Your task to perform on an android device: Add "logitech g502" to the cart on walmart, then select checkout. Image 0: 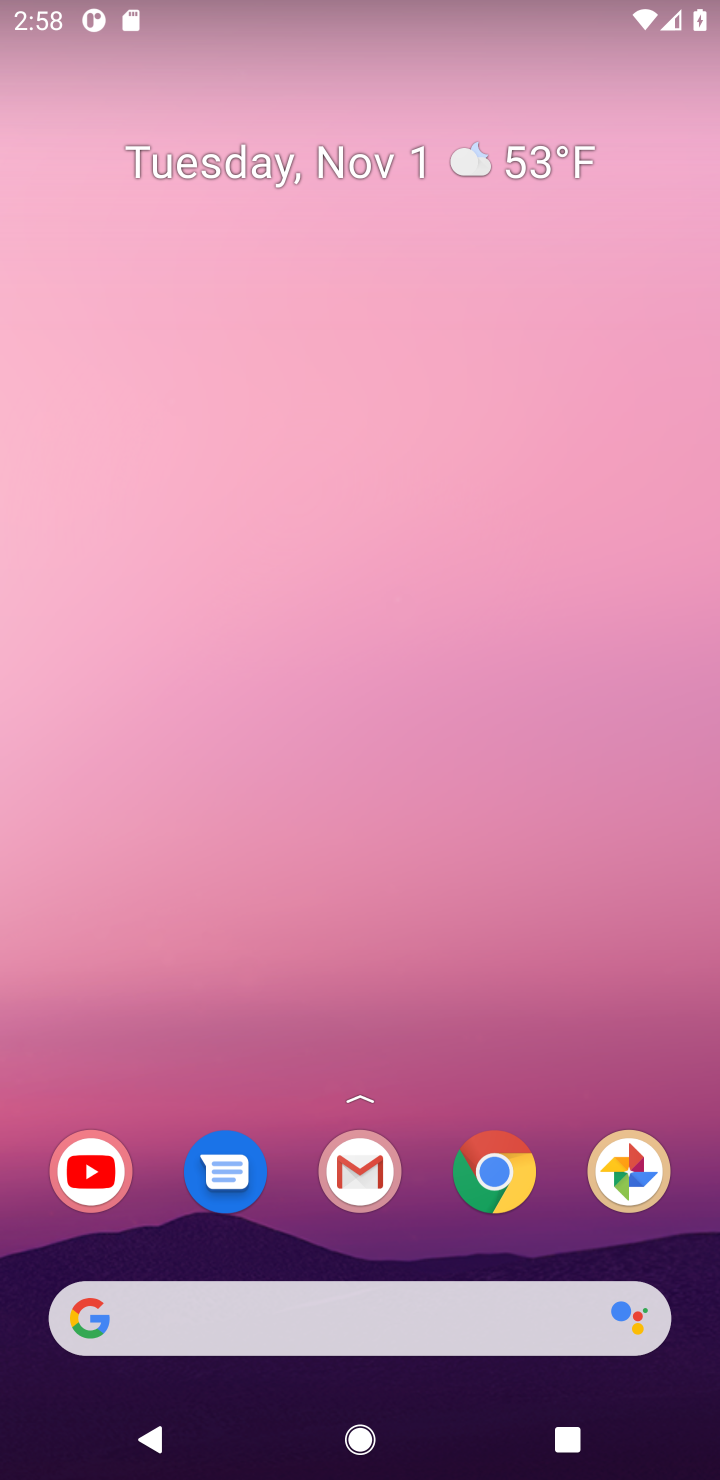
Step 0: press home button
Your task to perform on an android device: Add "logitech g502" to the cart on walmart, then select checkout. Image 1: 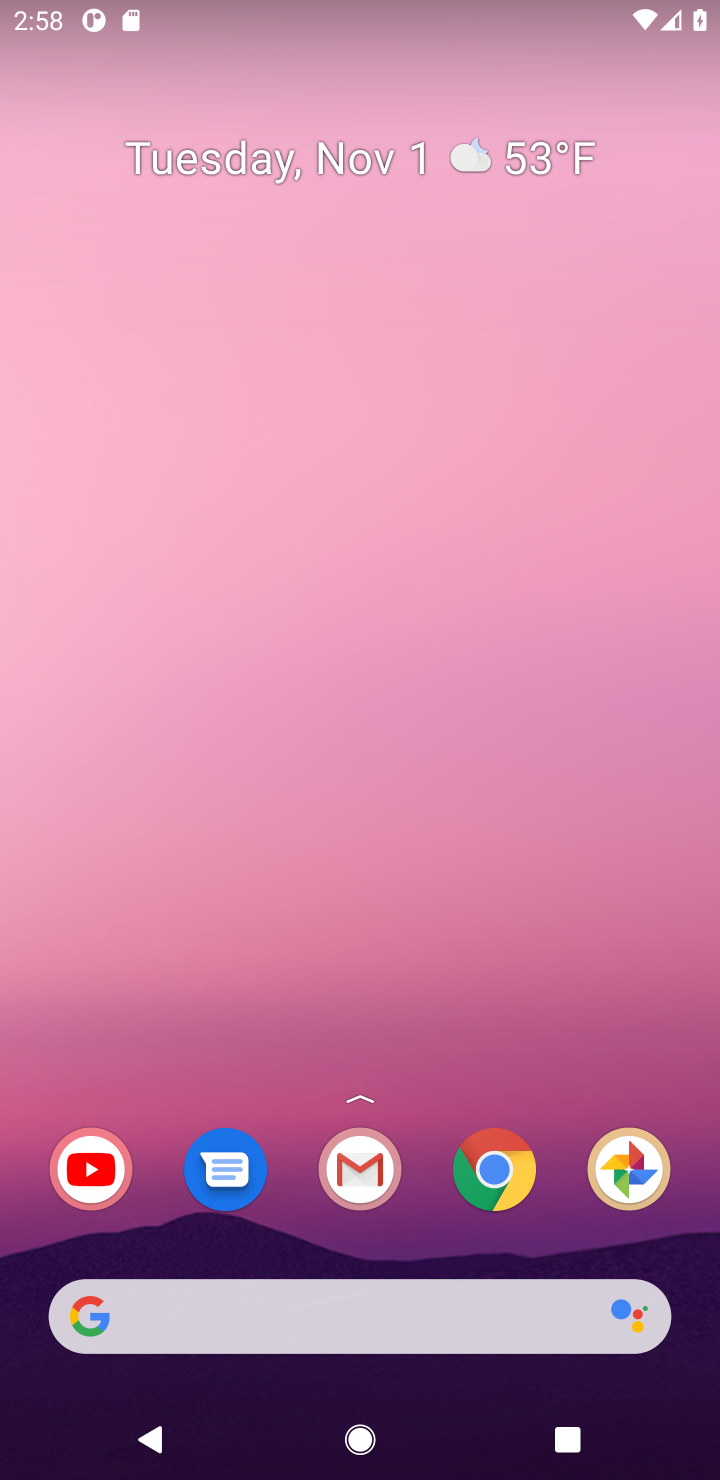
Step 1: click (494, 1157)
Your task to perform on an android device: Add "logitech g502" to the cart on walmart, then select checkout. Image 2: 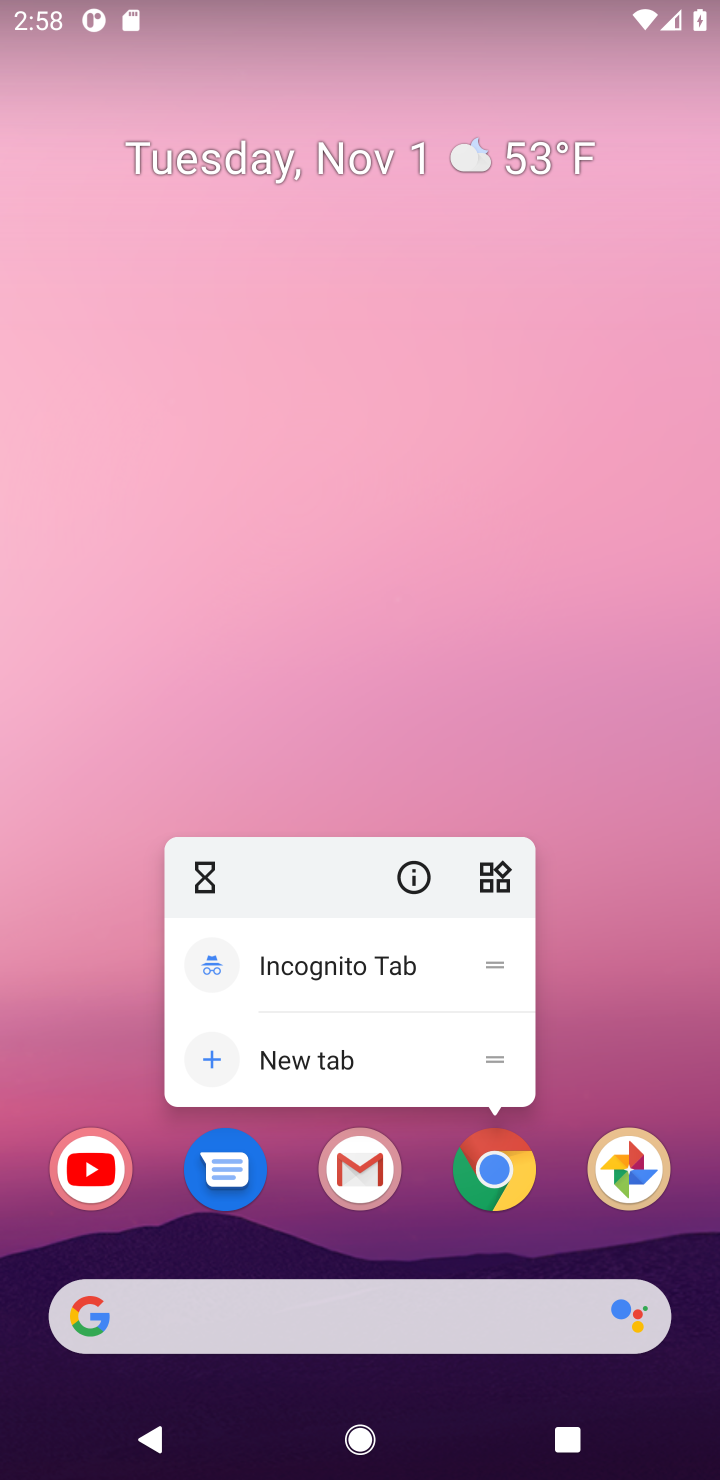
Step 2: click (494, 1157)
Your task to perform on an android device: Add "logitech g502" to the cart on walmart, then select checkout. Image 3: 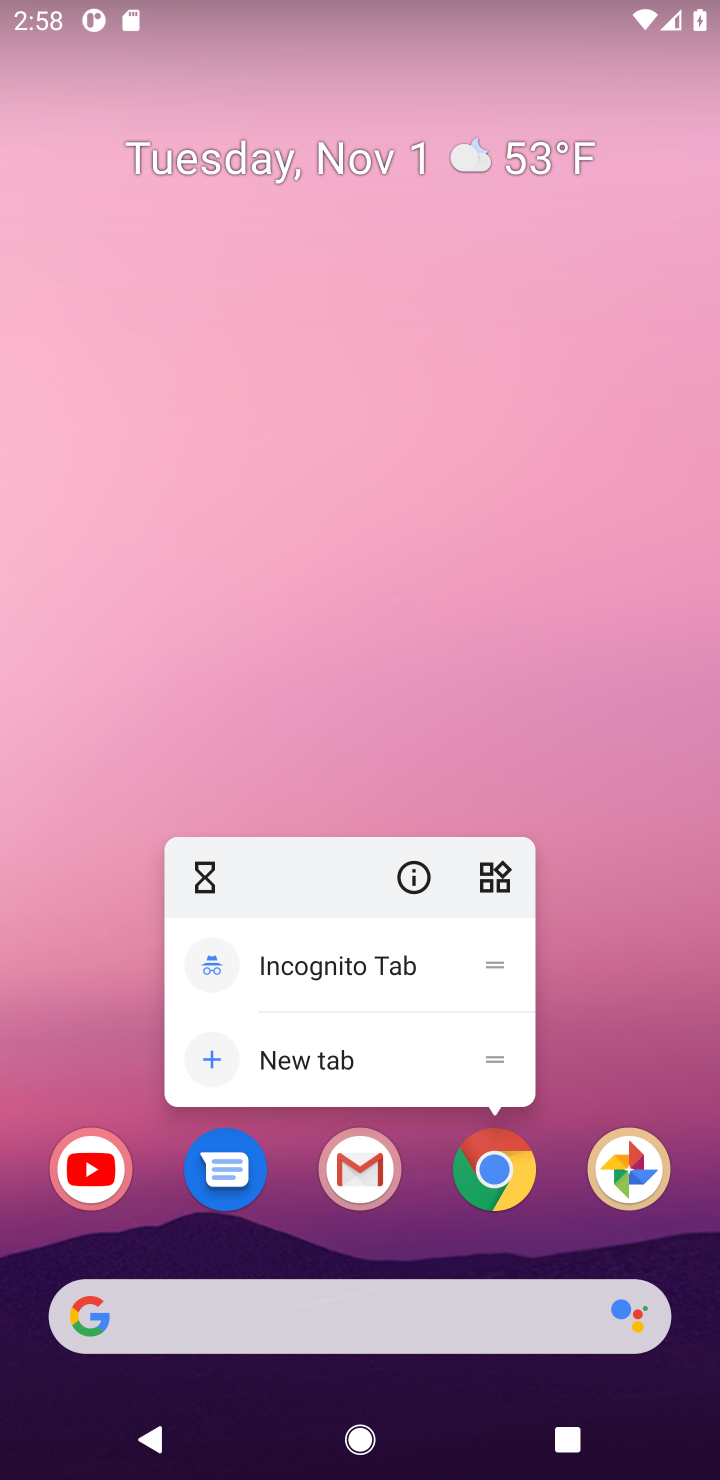
Step 3: click (486, 1179)
Your task to perform on an android device: Add "logitech g502" to the cart on walmart, then select checkout. Image 4: 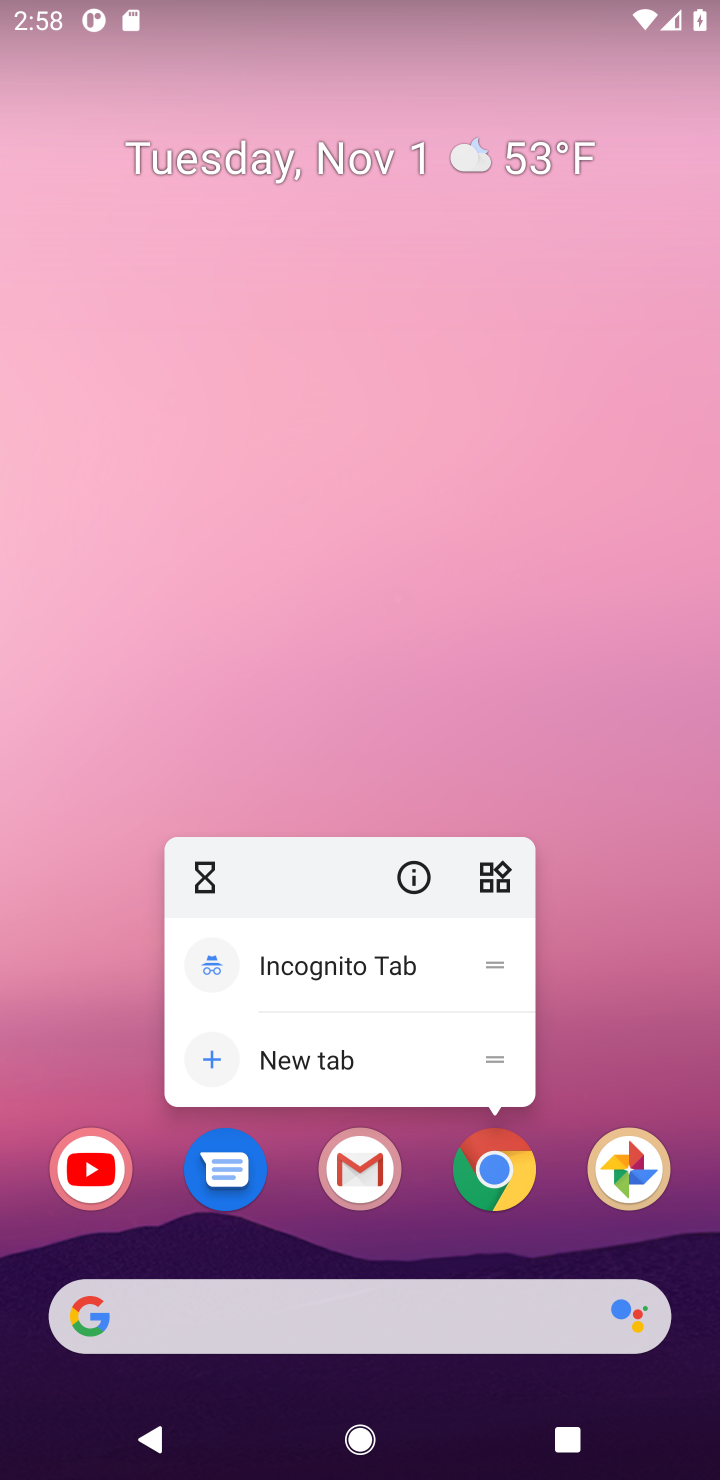
Step 4: click (490, 1162)
Your task to perform on an android device: Add "logitech g502" to the cart on walmart, then select checkout. Image 5: 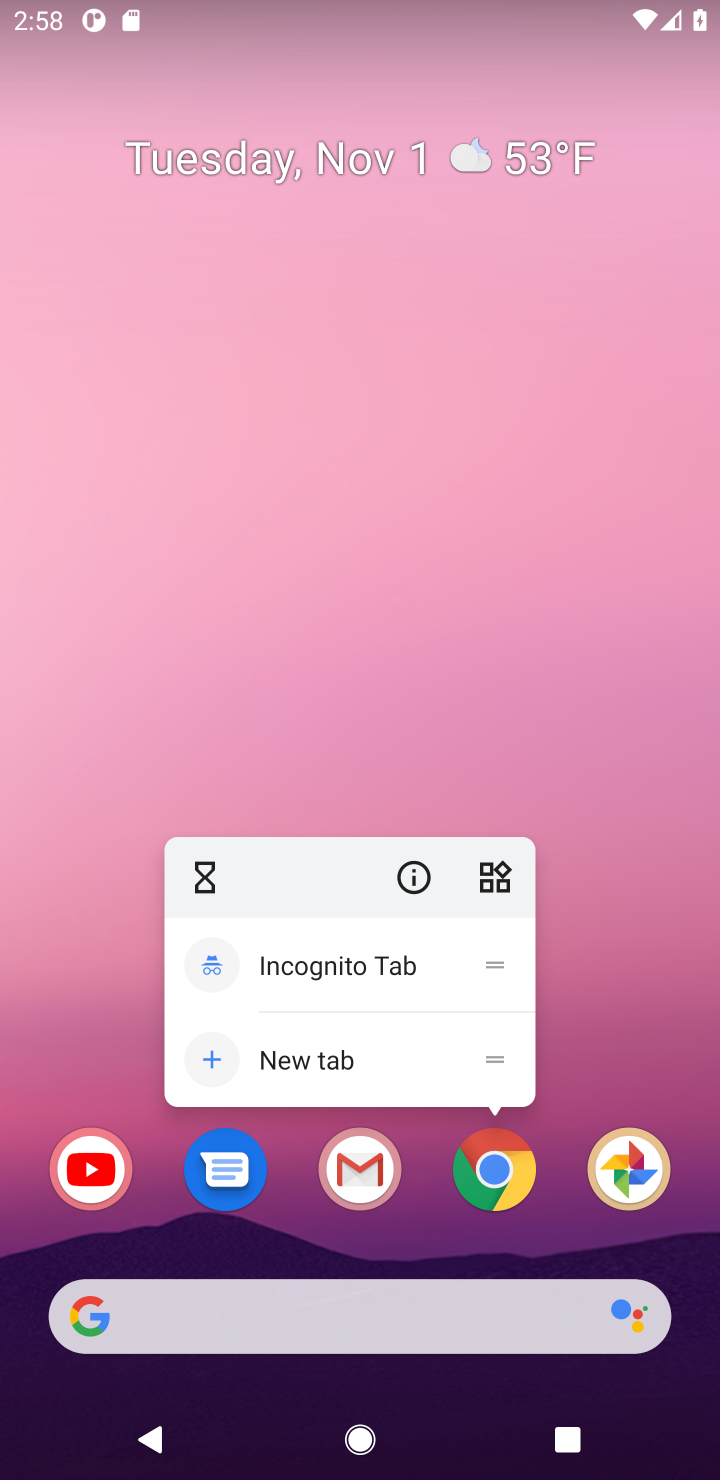
Step 5: click (620, 921)
Your task to perform on an android device: Add "logitech g502" to the cart on walmart, then select checkout. Image 6: 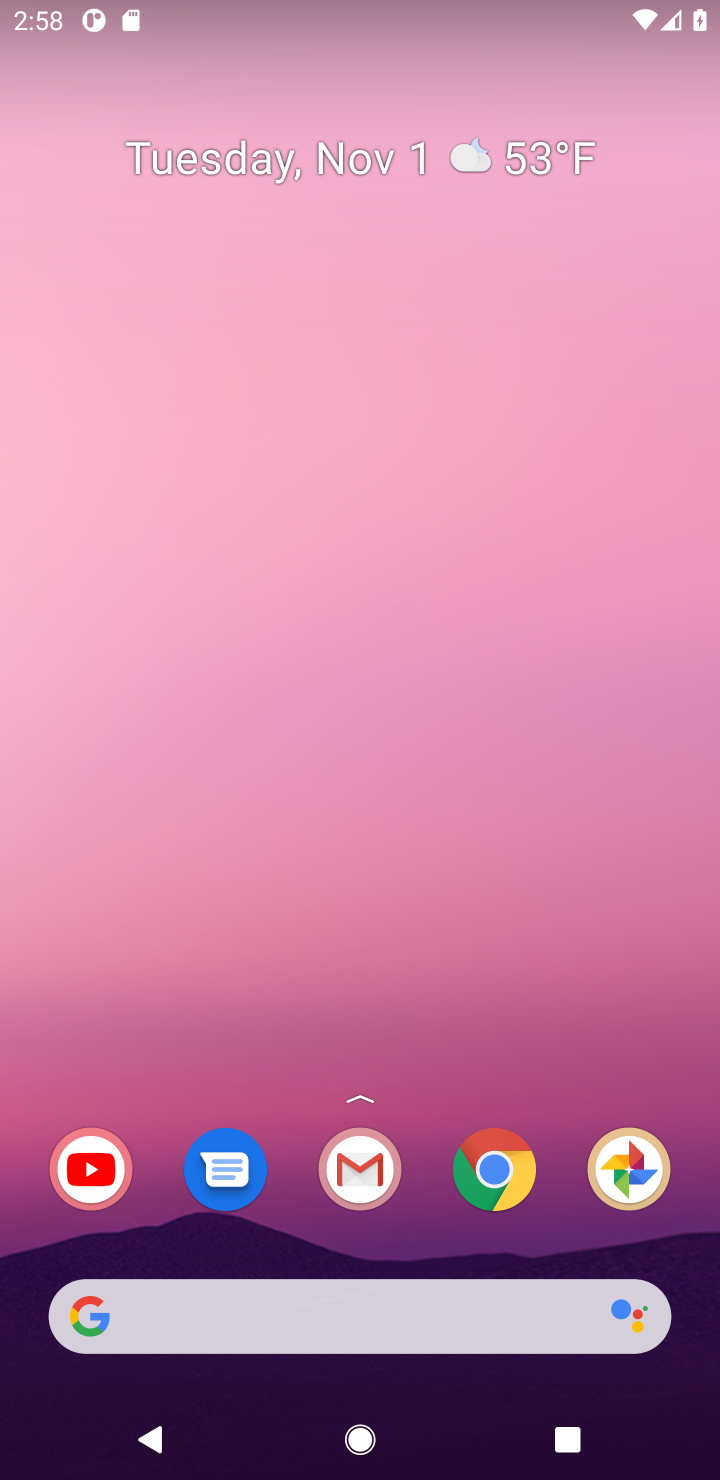
Step 6: drag from (447, 1066) to (542, 165)
Your task to perform on an android device: Add "logitech g502" to the cart on walmart, then select checkout. Image 7: 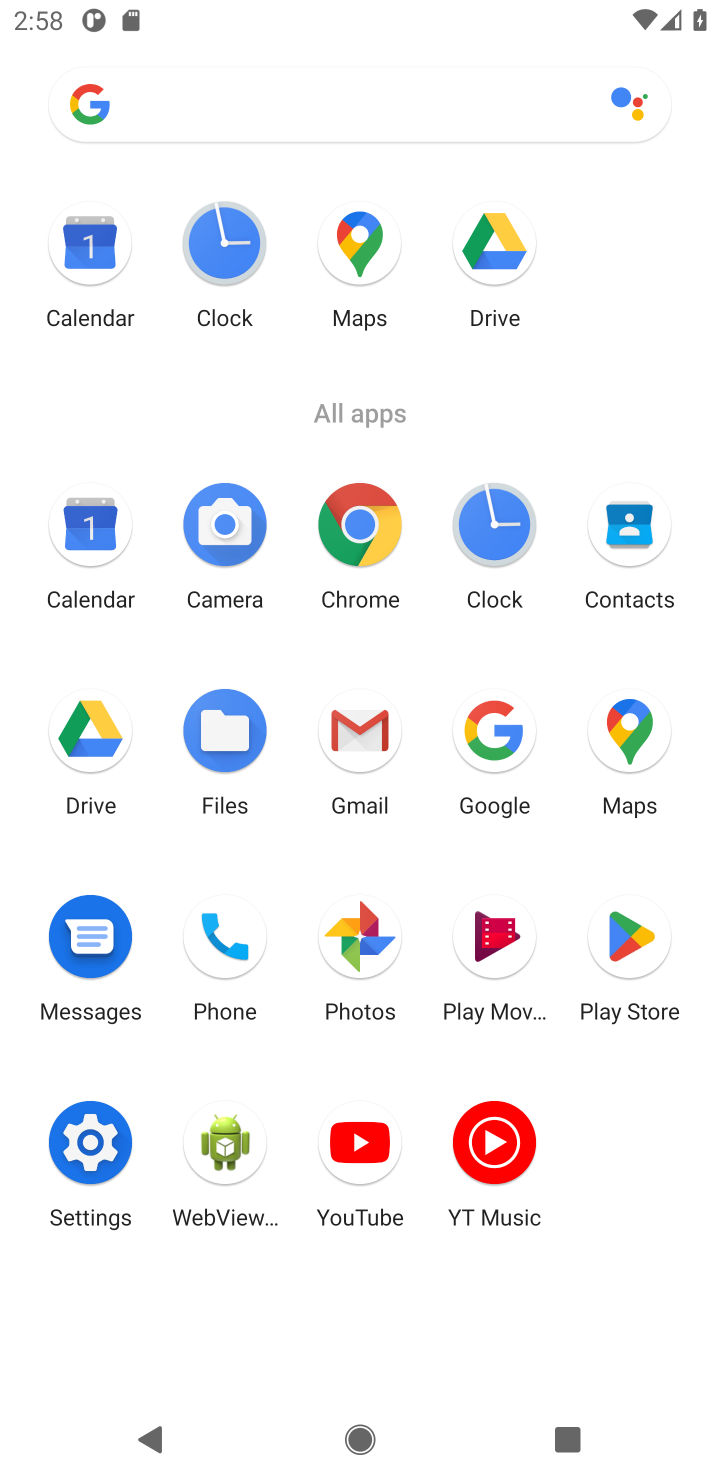
Step 7: click (348, 528)
Your task to perform on an android device: Add "logitech g502" to the cart on walmart, then select checkout. Image 8: 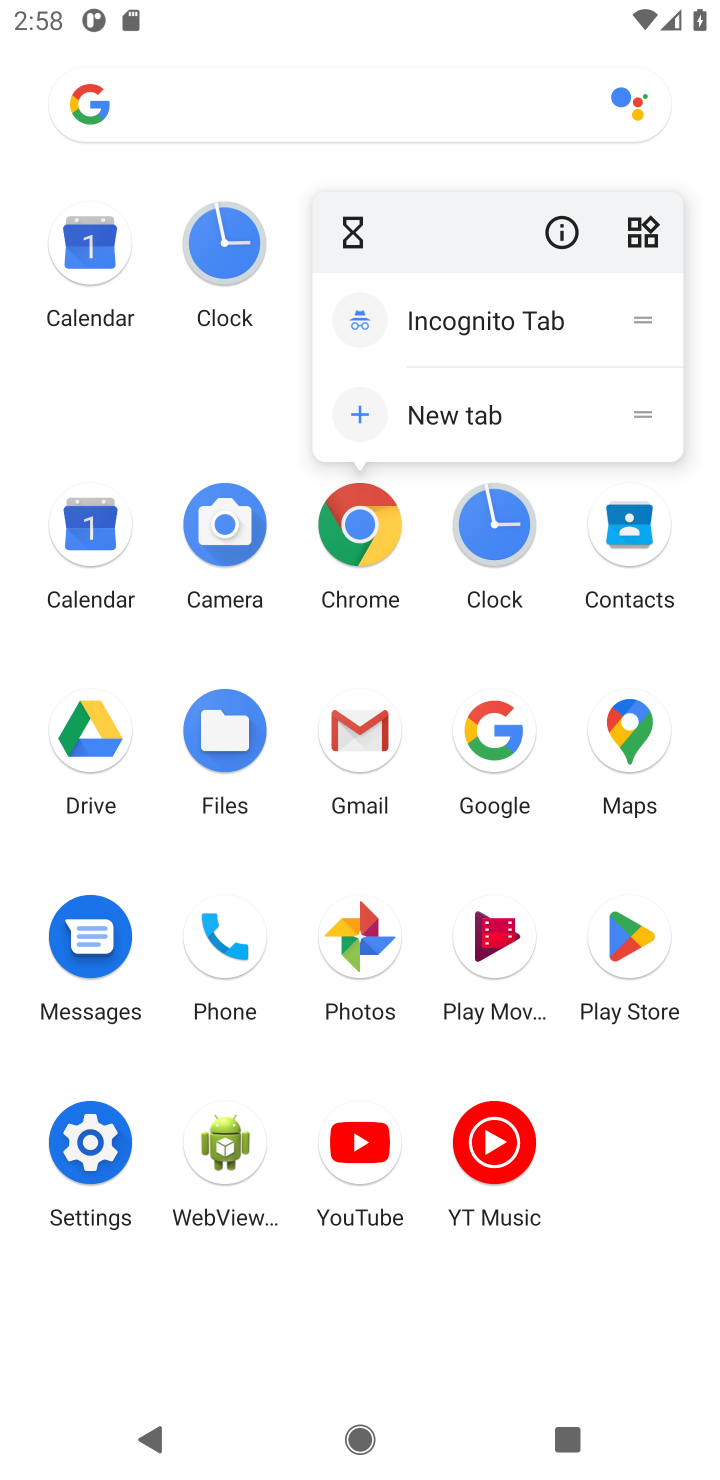
Step 8: click (363, 505)
Your task to perform on an android device: Add "logitech g502" to the cart on walmart, then select checkout. Image 9: 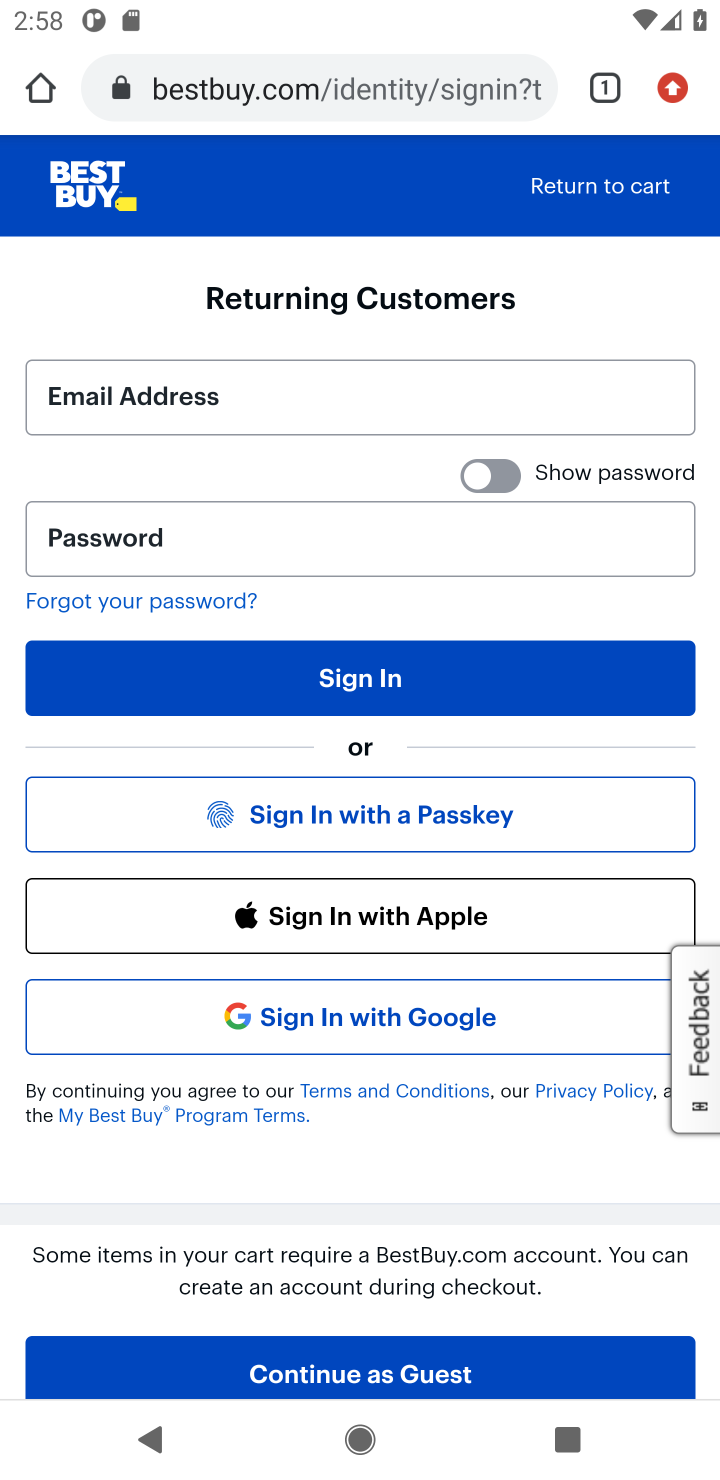
Step 9: click (302, 79)
Your task to perform on an android device: Add "logitech g502" to the cart on walmart, then select checkout. Image 10: 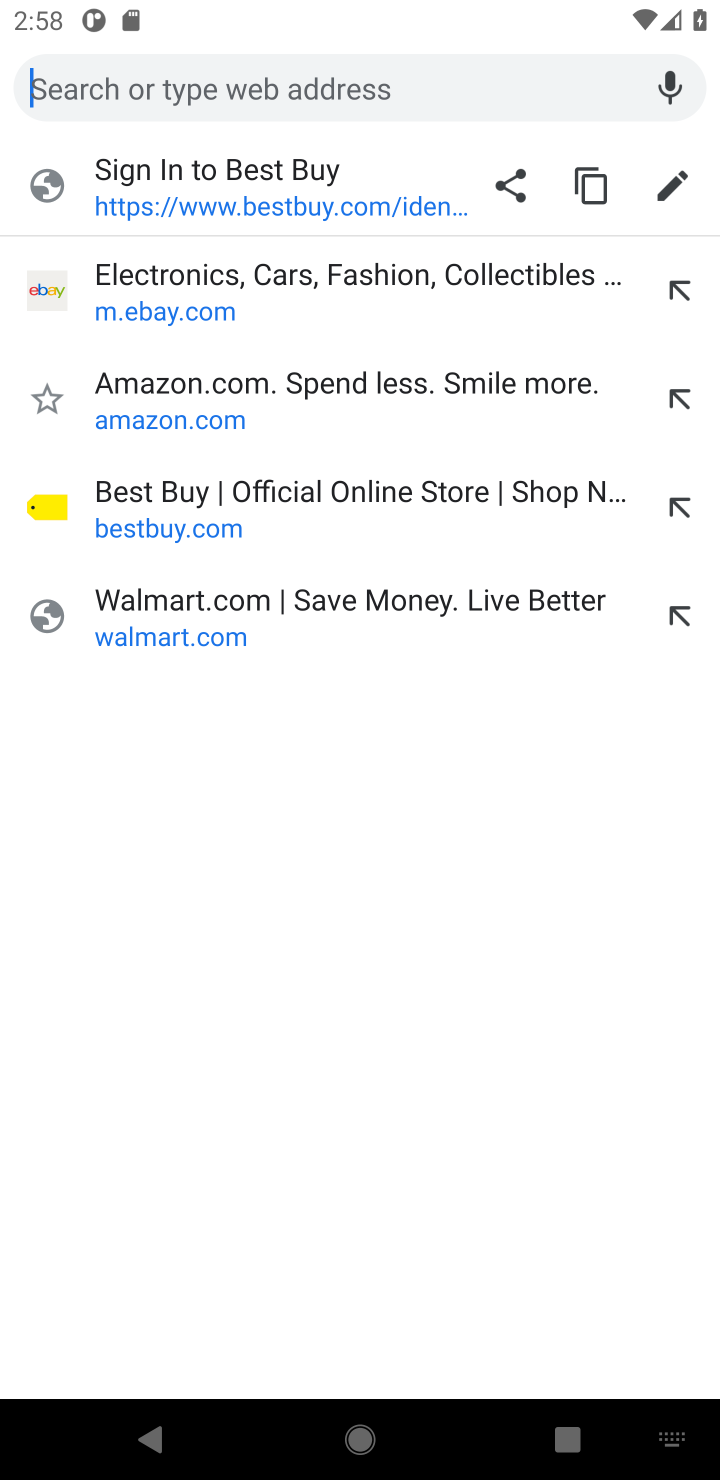
Step 10: type "walmart"
Your task to perform on an android device: Add "logitech g502" to the cart on walmart, then select checkout. Image 11: 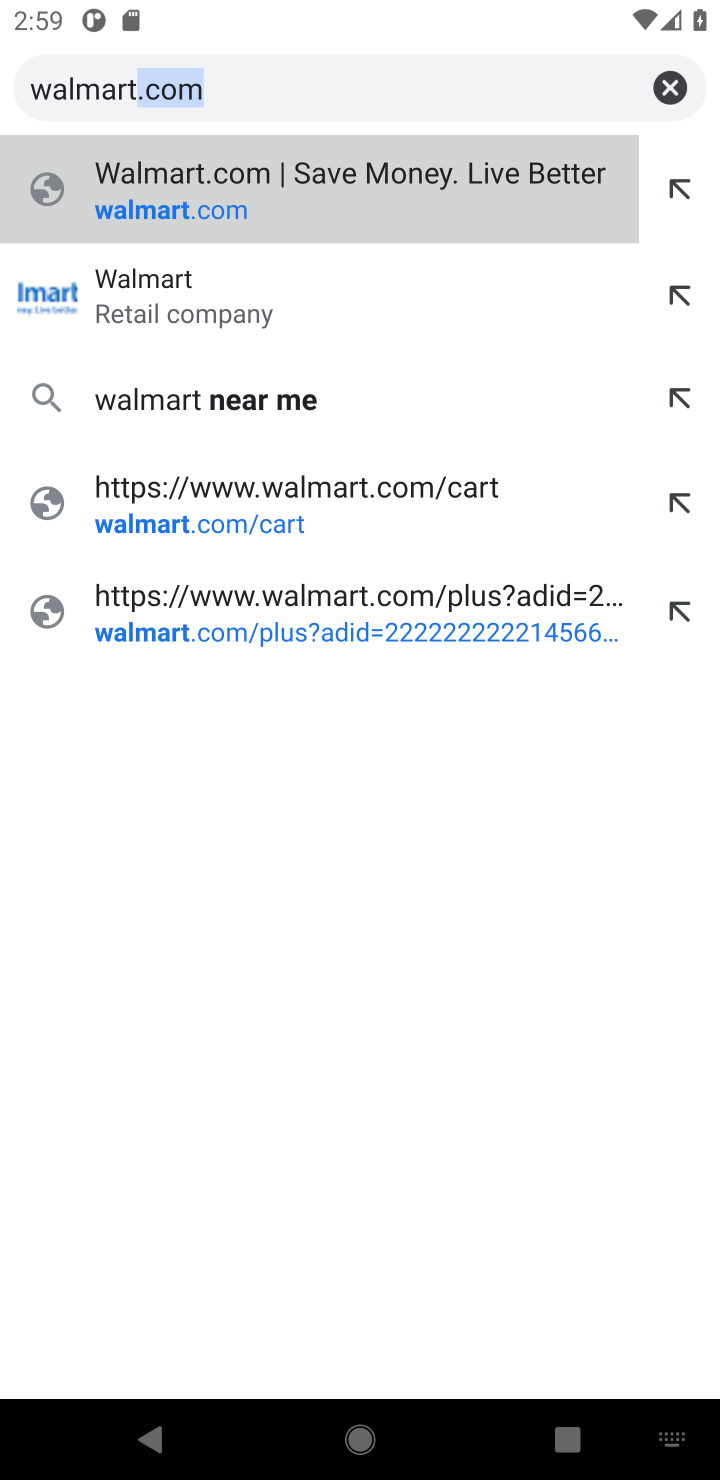
Step 11: click (245, 212)
Your task to perform on an android device: Add "logitech g502" to the cart on walmart, then select checkout. Image 12: 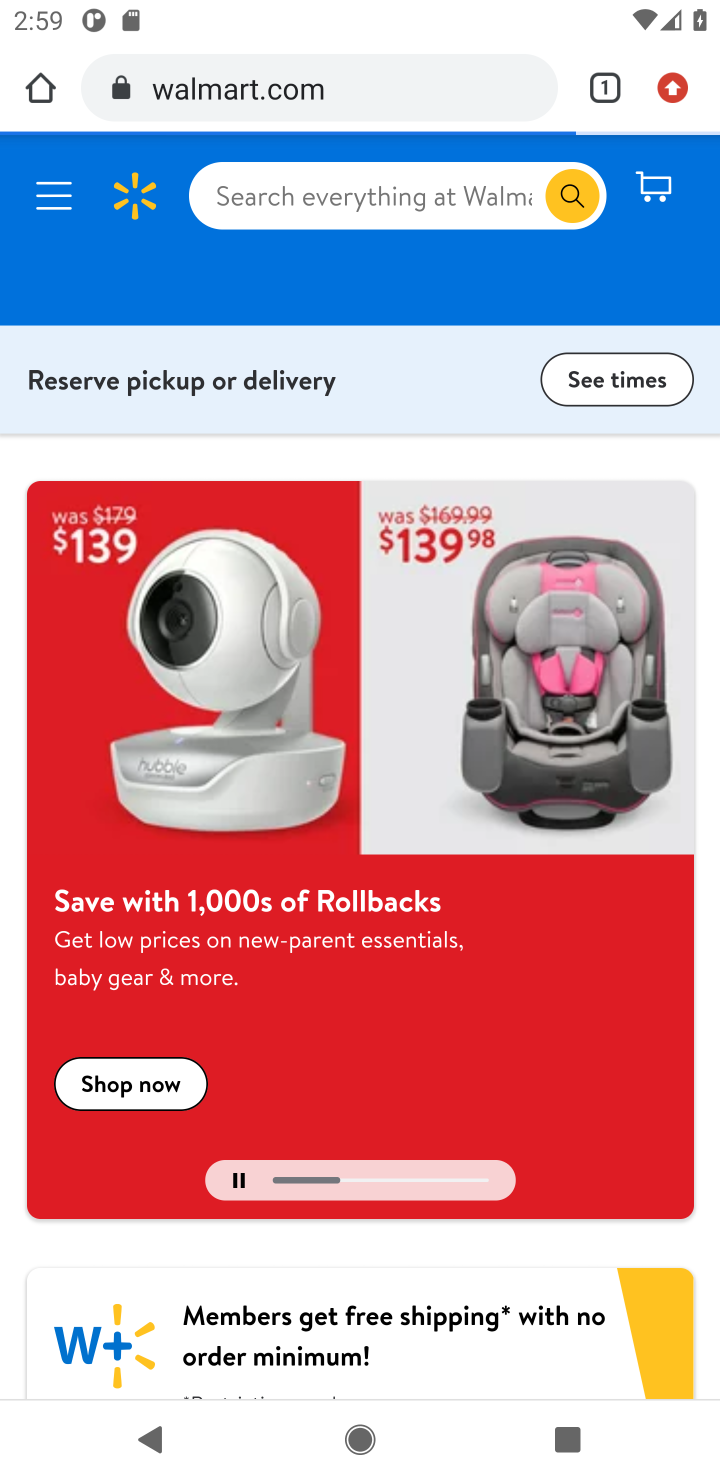
Step 12: click (369, 195)
Your task to perform on an android device: Add "logitech g502" to the cart on walmart, then select checkout. Image 13: 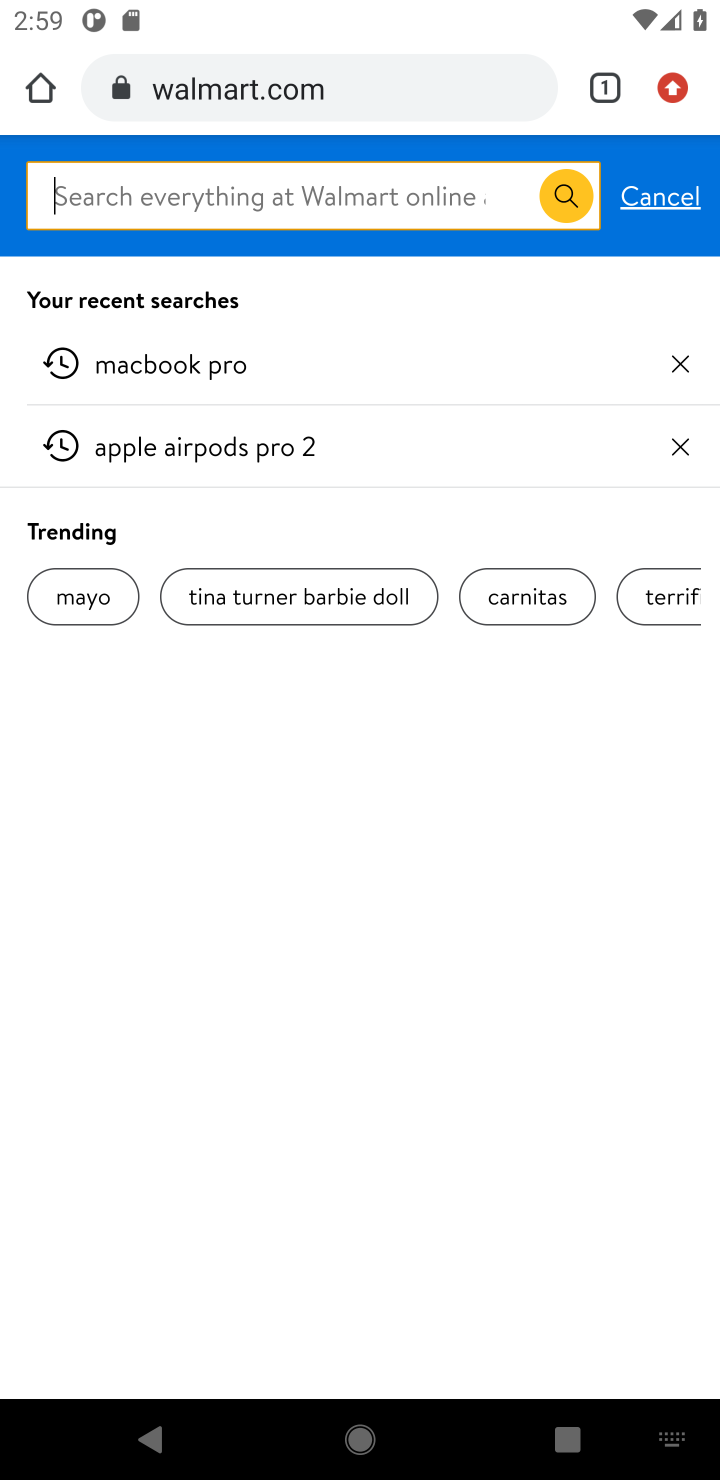
Step 13: type "logitech g502"
Your task to perform on an android device: Add "logitech g502" to the cart on walmart, then select checkout. Image 14: 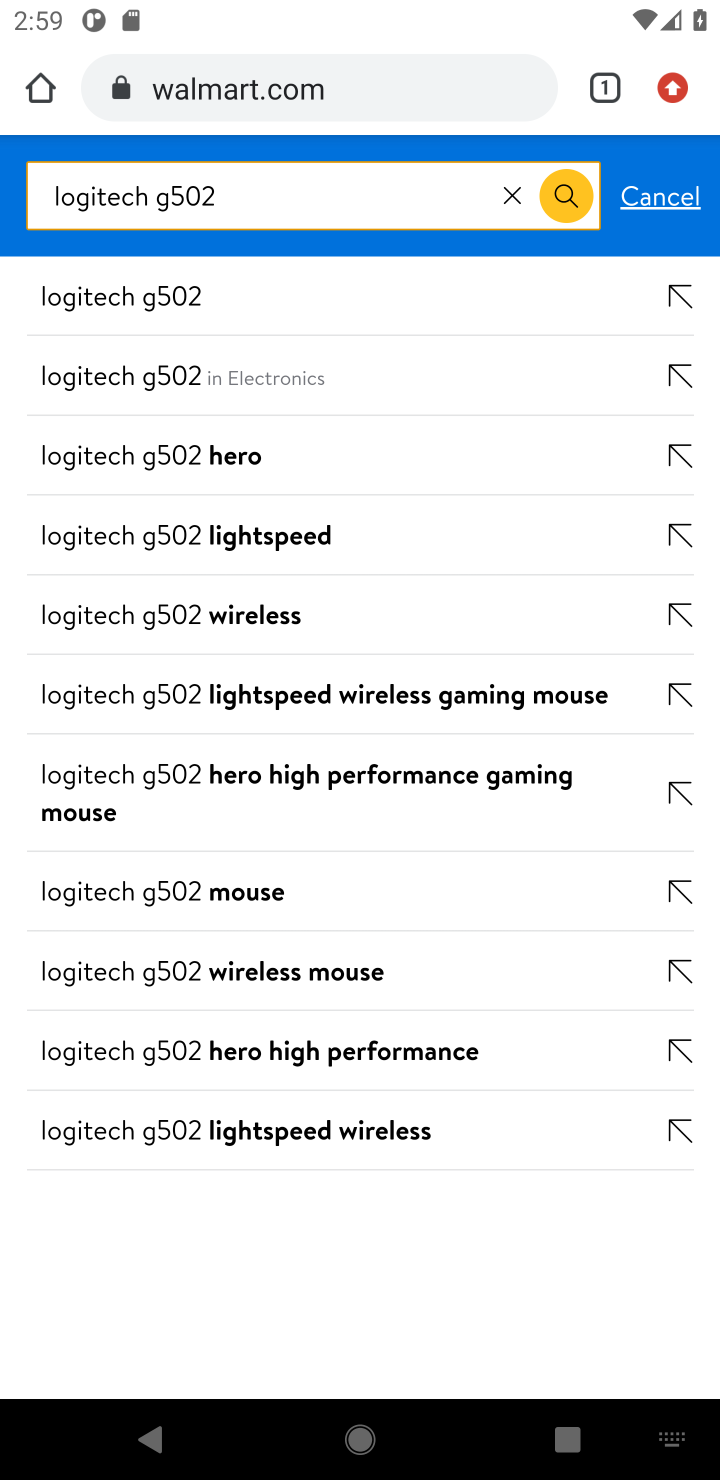
Step 14: click (210, 376)
Your task to perform on an android device: Add "logitech g502" to the cart on walmart, then select checkout. Image 15: 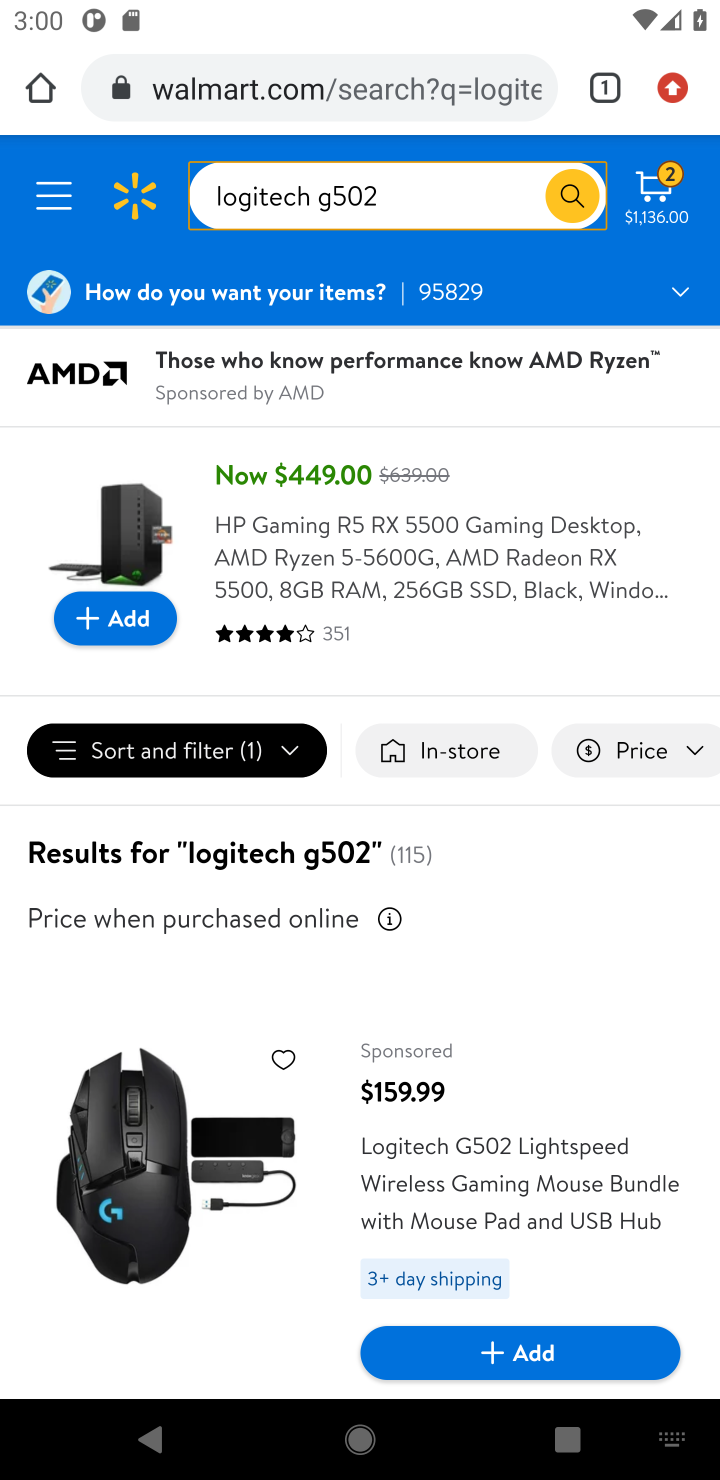
Step 15: click (458, 1138)
Your task to perform on an android device: Add "logitech g502" to the cart on walmart, then select checkout. Image 16: 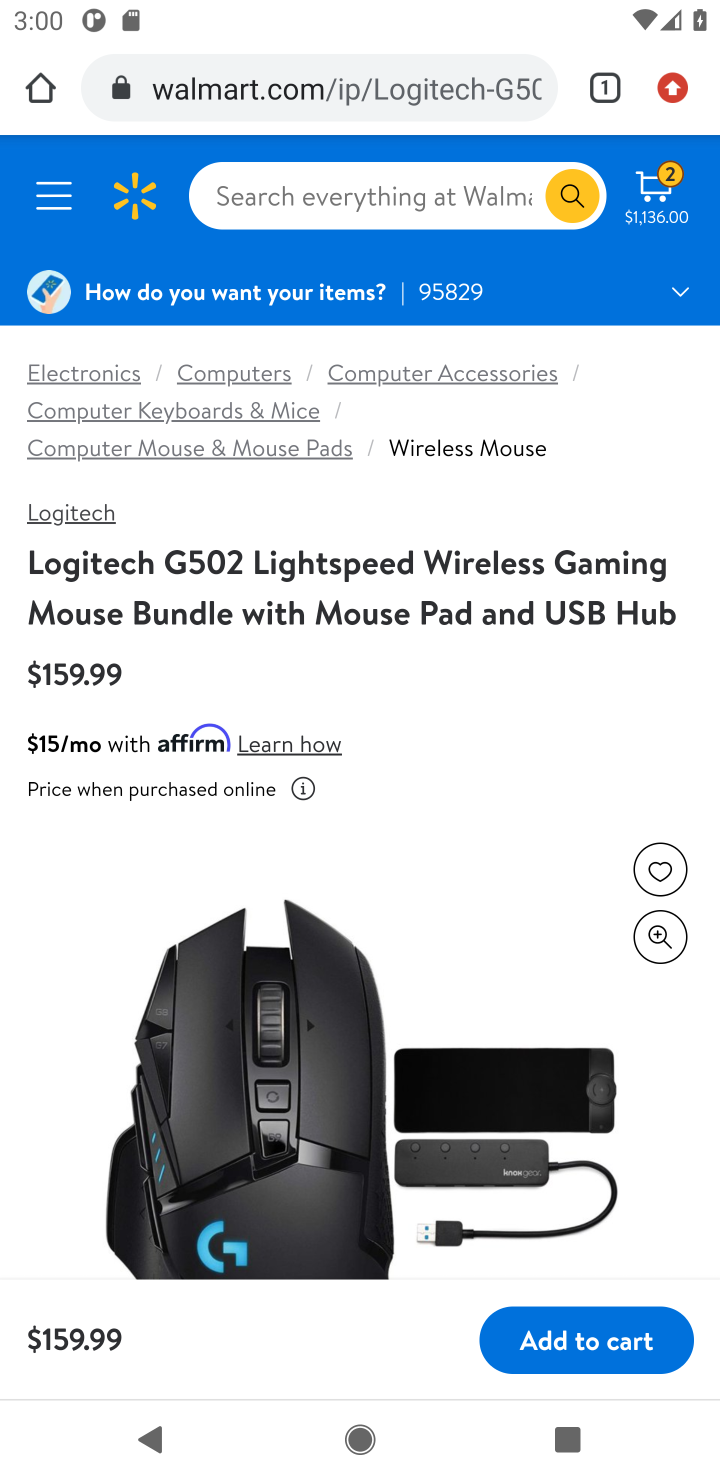
Step 16: drag from (484, 708) to (521, 151)
Your task to perform on an android device: Add "logitech g502" to the cart on walmart, then select checkout. Image 17: 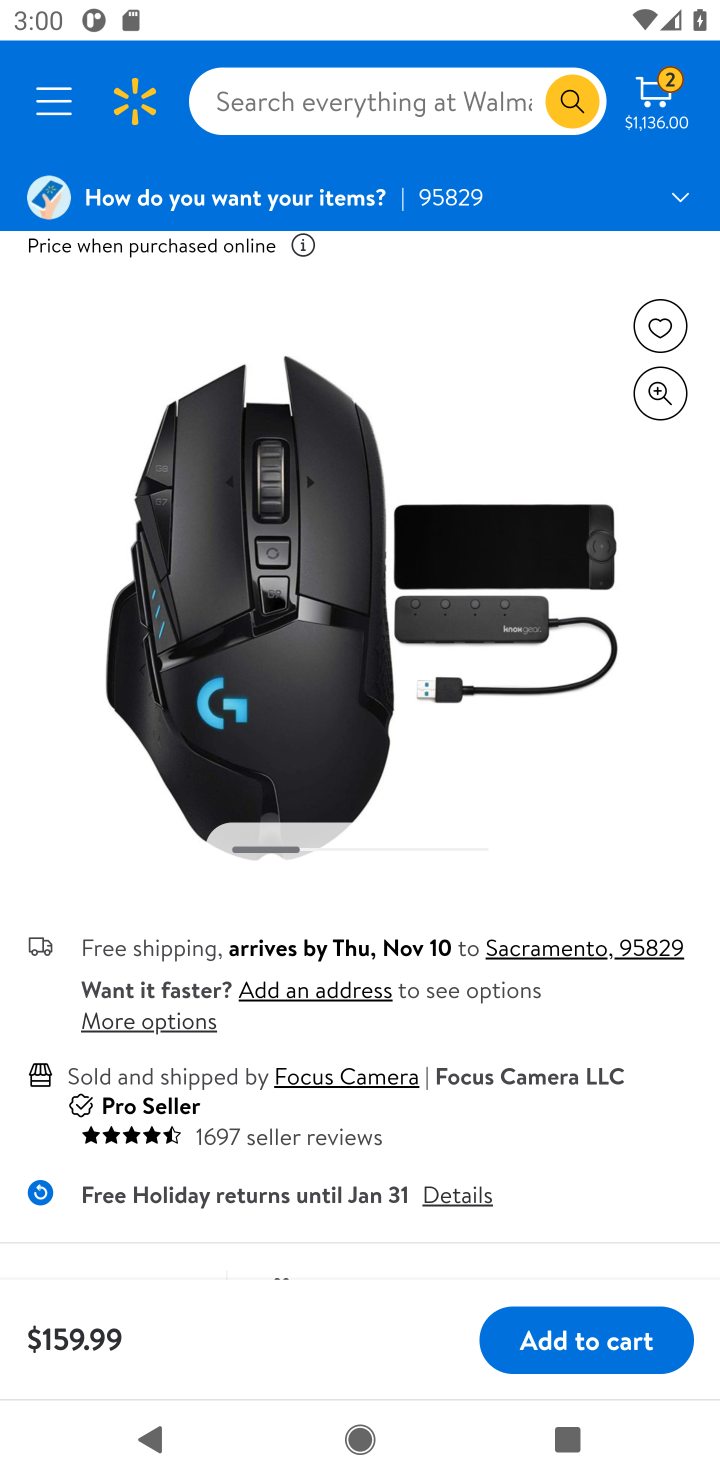
Step 17: drag from (283, 1239) to (401, 428)
Your task to perform on an android device: Add "logitech g502" to the cart on walmart, then select checkout. Image 18: 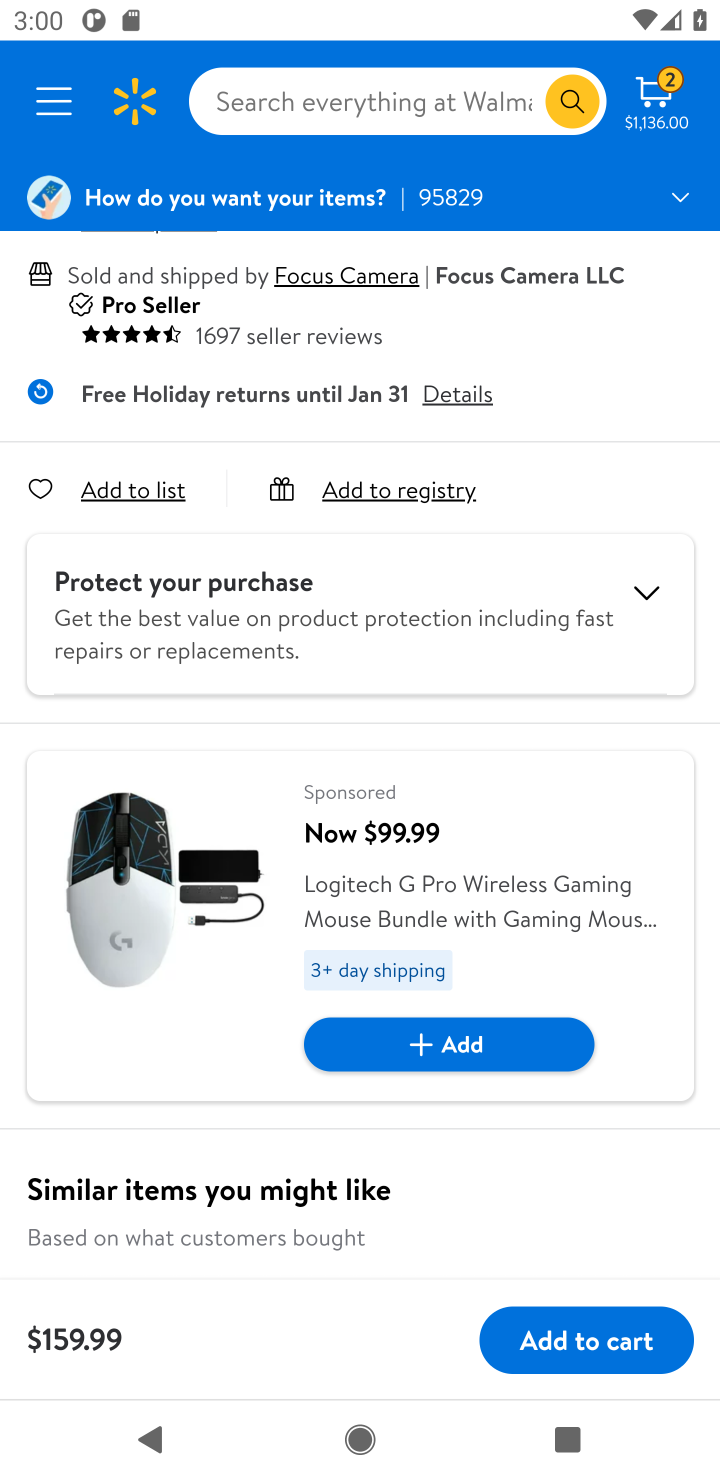
Step 18: drag from (422, 441) to (451, 966)
Your task to perform on an android device: Add "logitech g502" to the cart on walmart, then select checkout. Image 19: 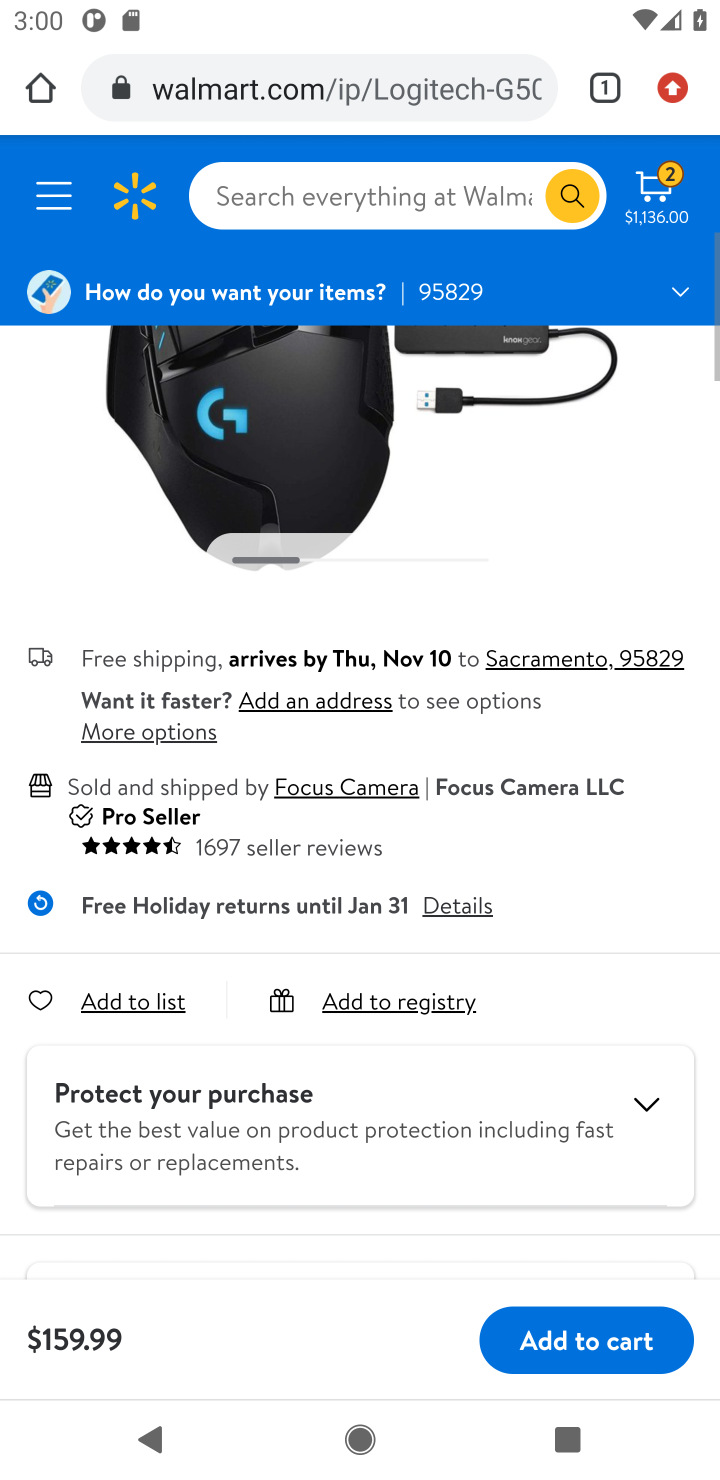
Step 19: click (583, 1331)
Your task to perform on an android device: Add "logitech g502" to the cart on walmart, then select checkout. Image 20: 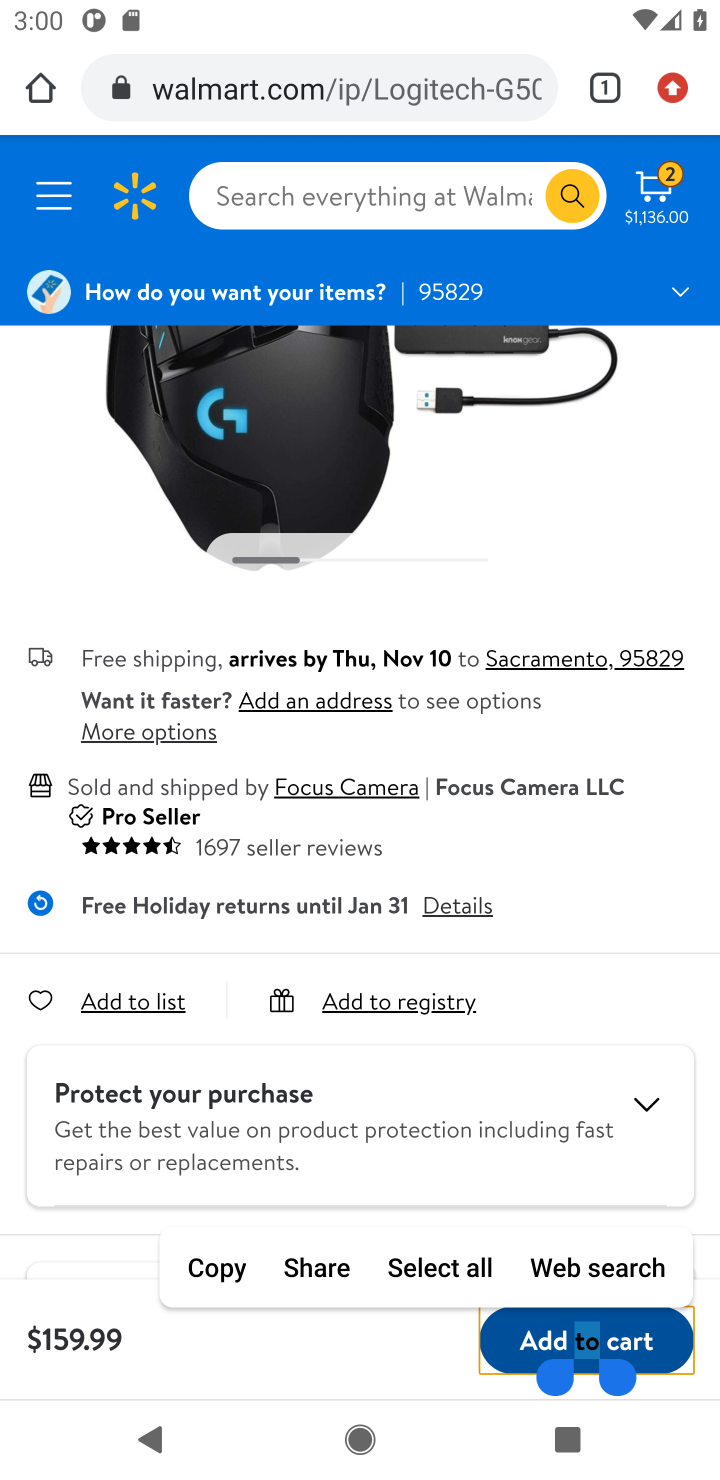
Step 20: click (509, 1352)
Your task to perform on an android device: Add "logitech g502" to the cart on walmart, then select checkout. Image 21: 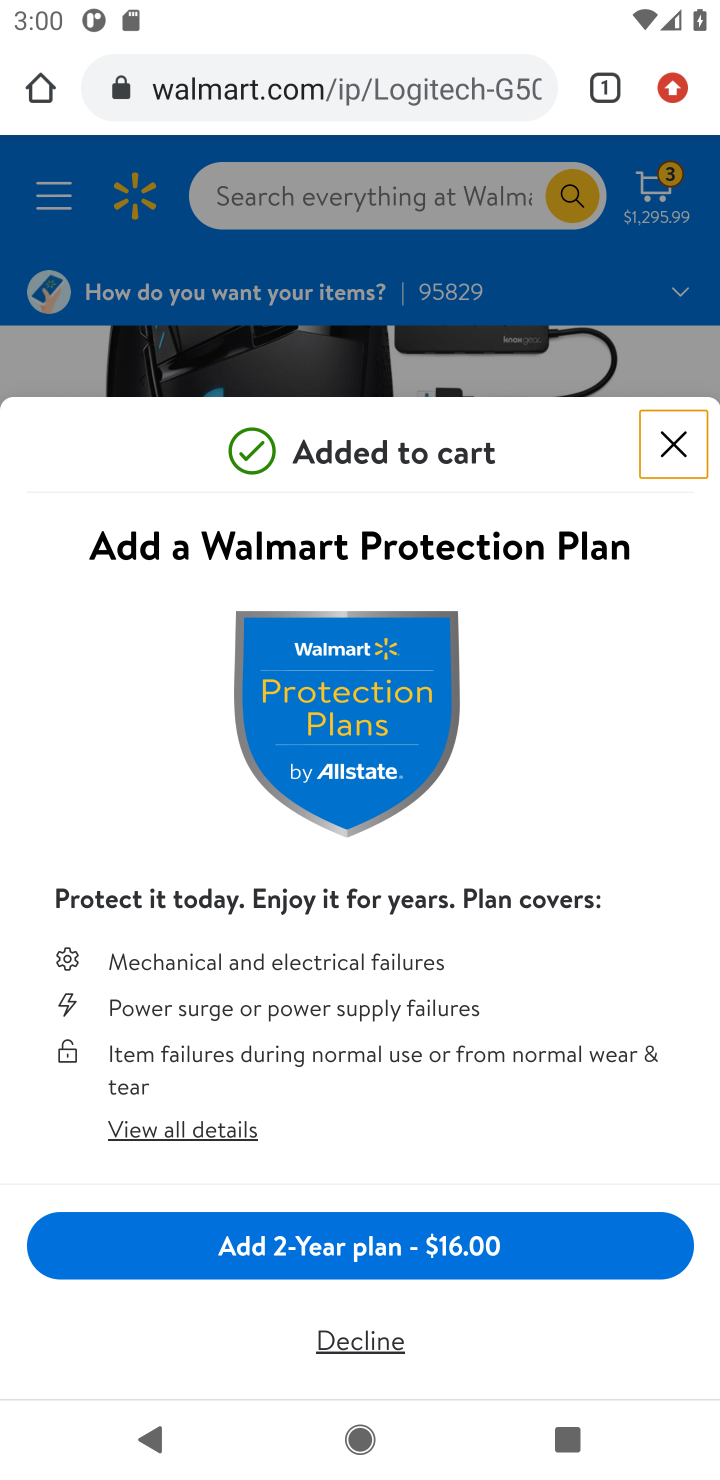
Step 21: click (670, 430)
Your task to perform on an android device: Add "logitech g502" to the cart on walmart, then select checkout. Image 22: 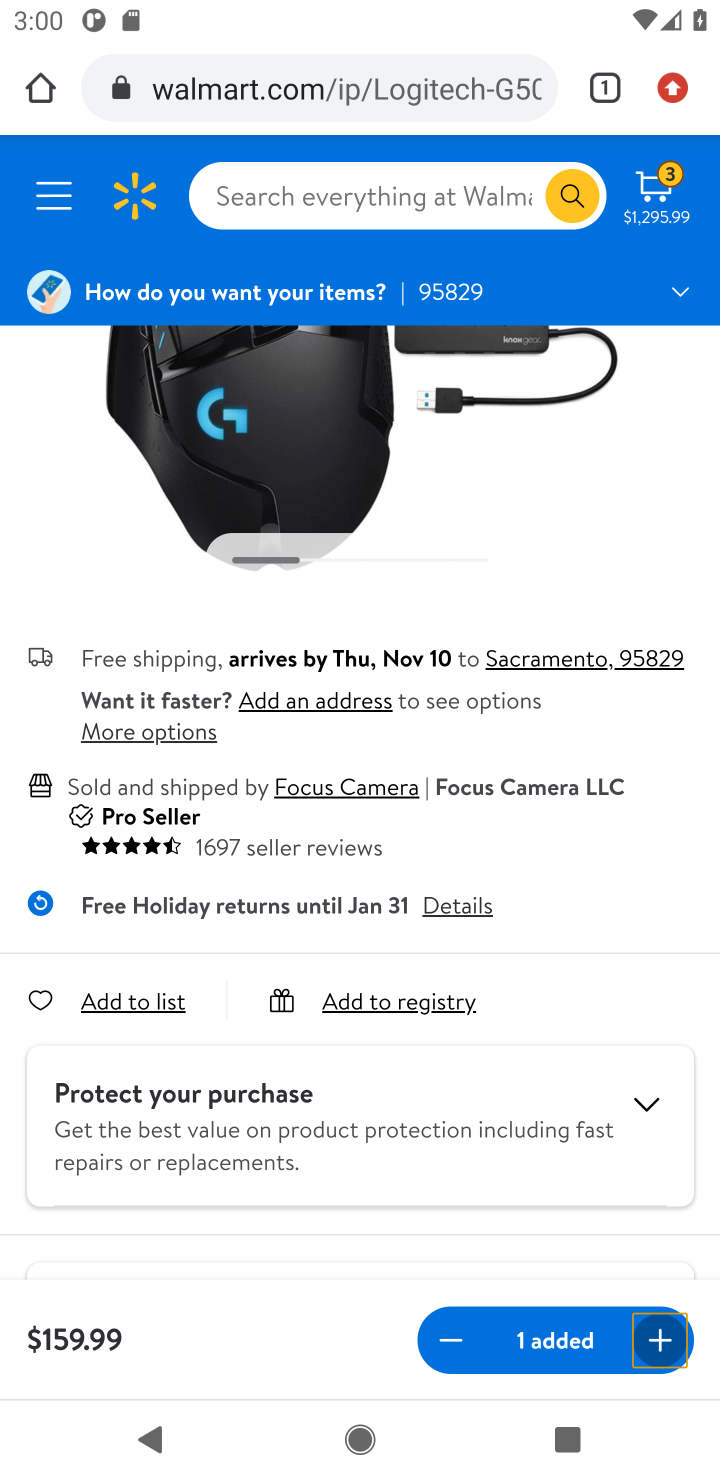
Step 22: click (655, 187)
Your task to perform on an android device: Add "logitech g502" to the cart on walmart, then select checkout. Image 23: 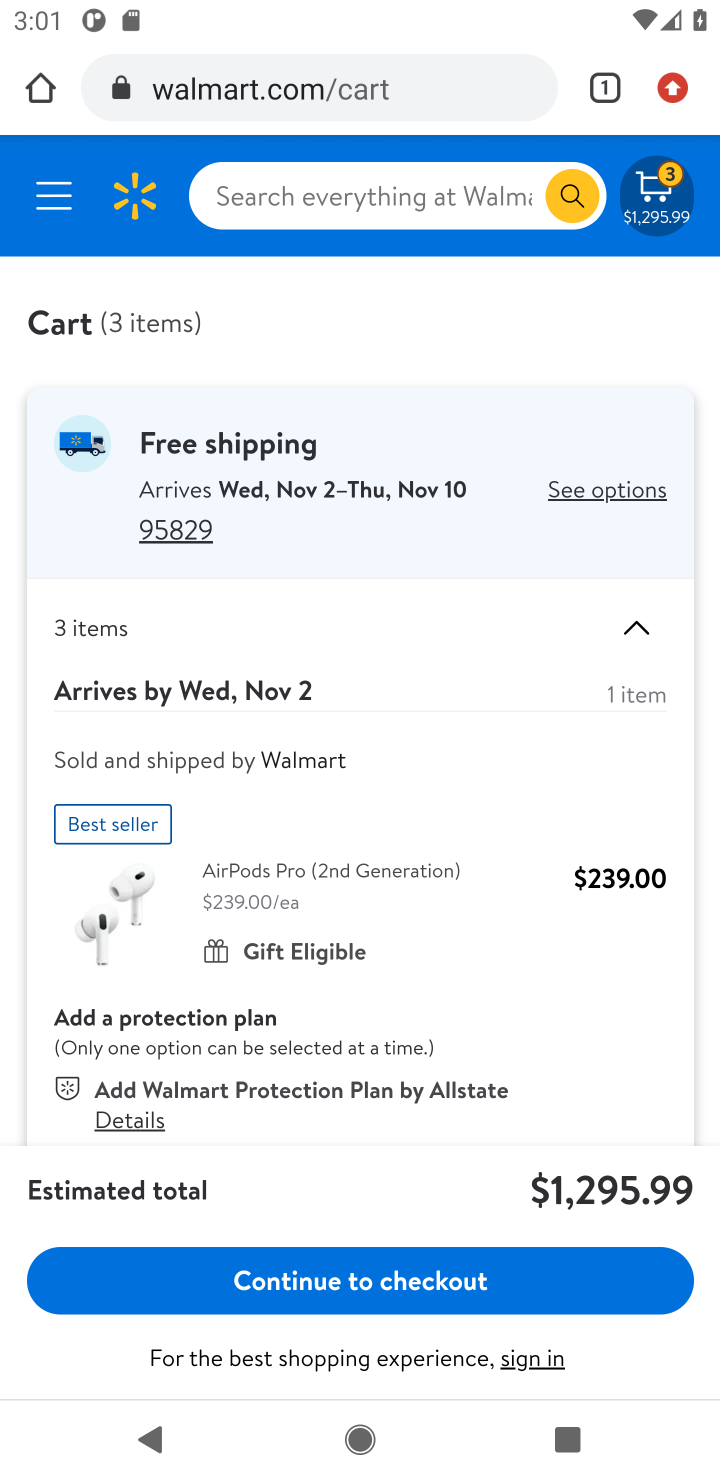
Step 23: click (391, 1279)
Your task to perform on an android device: Add "logitech g502" to the cart on walmart, then select checkout. Image 24: 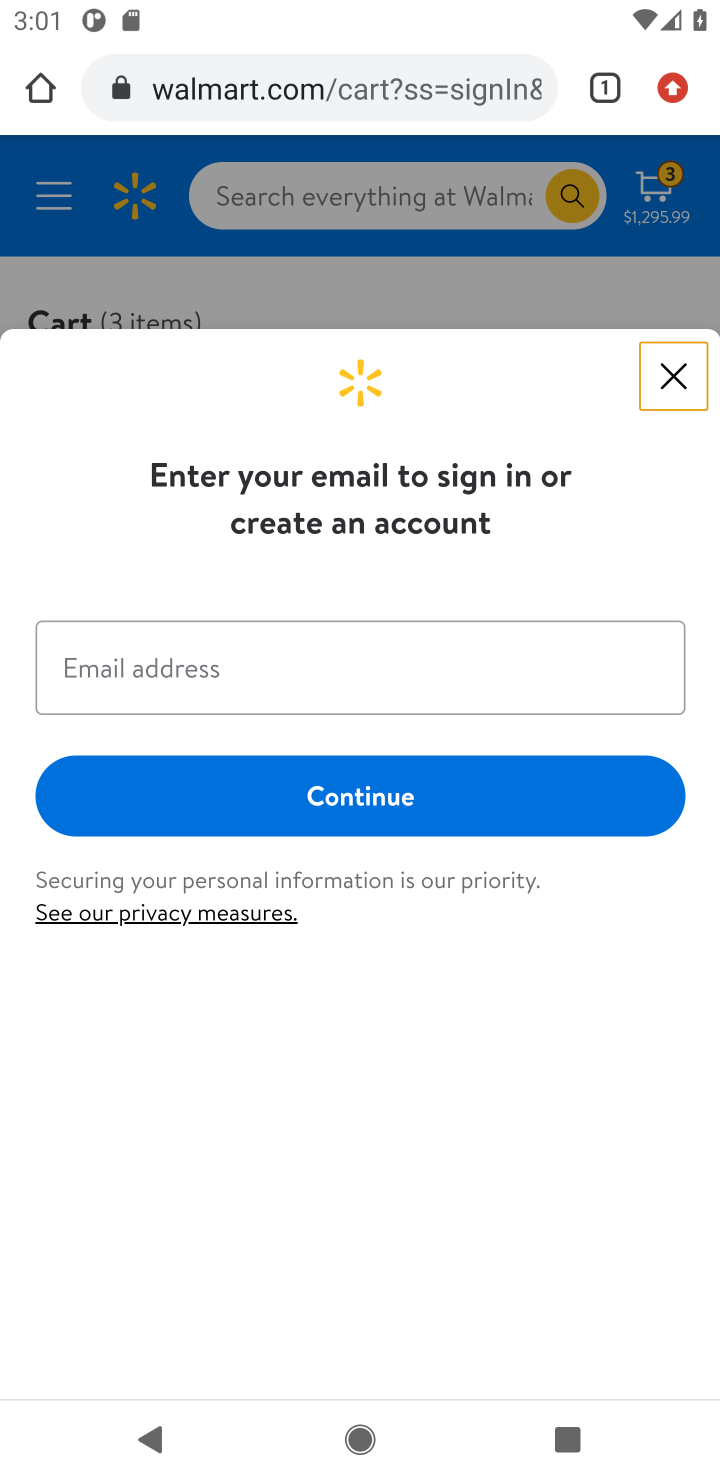
Step 24: task complete